Your task to perform on an android device: Open Google Chrome and click the shortcut for Amazon.com Image 0: 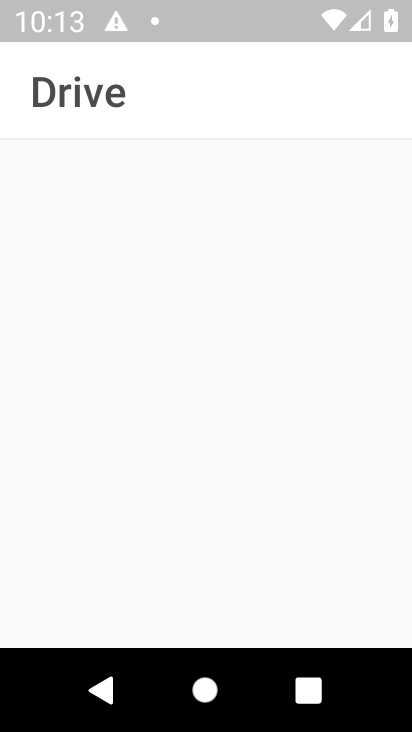
Step 0: press back button
Your task to perform on an android device: Open Google Chrome and click the shortcut for Amazon.com Image 1: 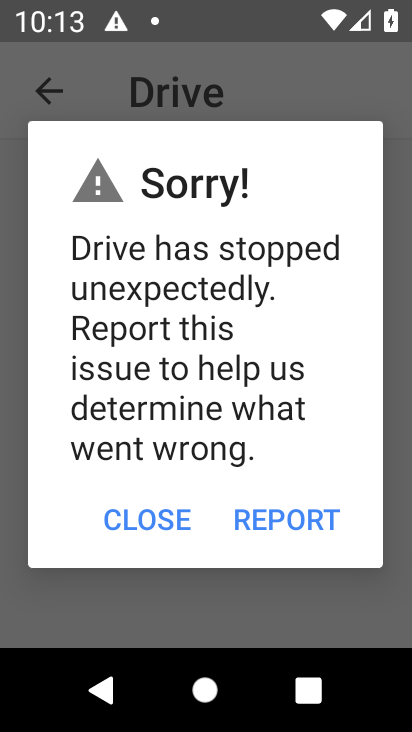
Step 1: press home button
Your task to perform on an android device: Open Google Chrome and click the shortcut for Amazon.com Image 2: 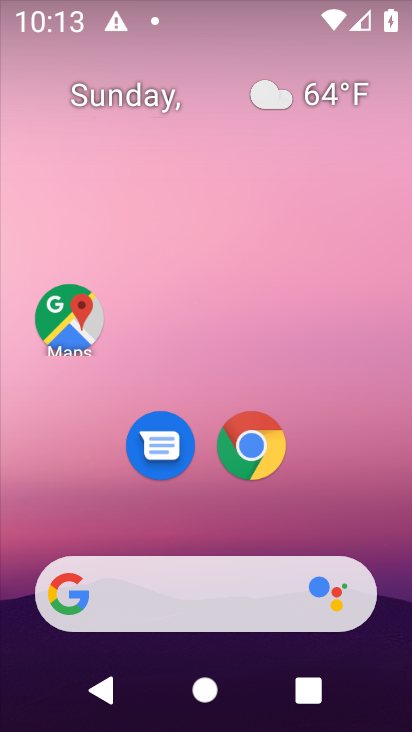
Step 2: click (262, 443)
Your task to perform on an android device: Open Google Chrome and click the shortcut for Amazon.com Image 3: 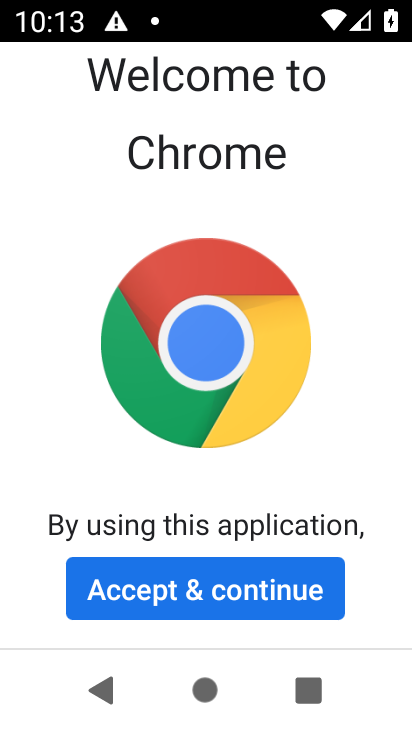
Step 3: click (265, 575)
Your task to perform on an android device: Open Google Chrome and click the shortcut for Amazon.com Image 4: 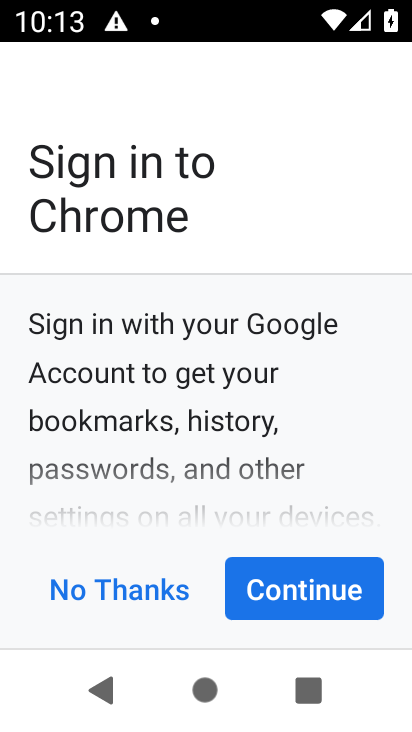
Step 4: click (323, 601)
Your task to perform on an android device: Open Google Chrome and click the shortcut for Amazon.com Image 5: 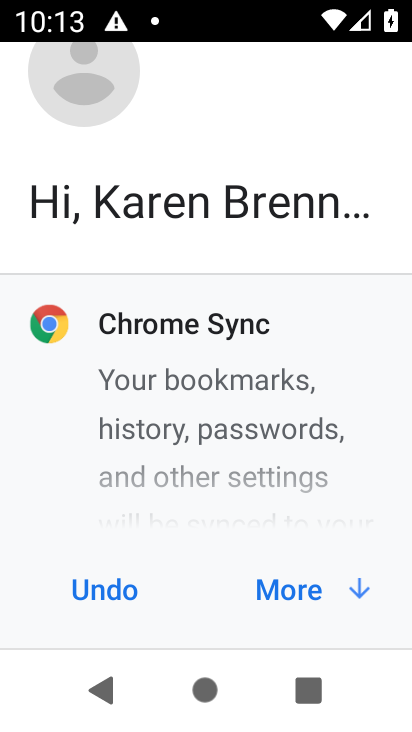
Step 5: click (323, 601)
Your task to perform on an android device: Open Google Chrome and click the shortcut for Amazon.com Image 6: 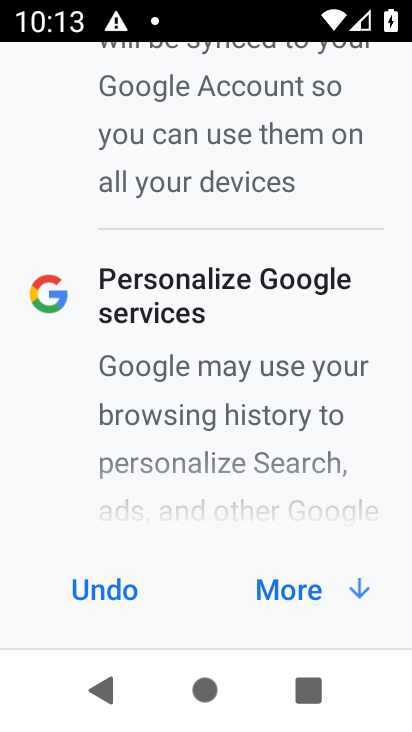
Step 6: click (304, 595)
Your task to perform on an android device: Open Google Chrome and click the shortcut for Amazon.com Image 7: 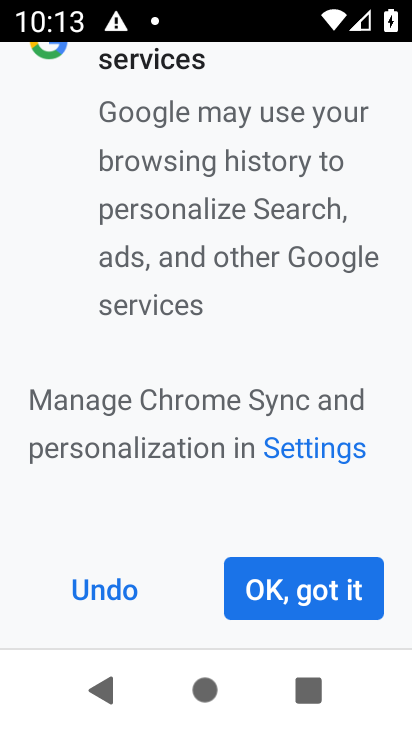
Step 7: click (304, 595)
Your task to perform on an android device: Open Google Chrome and click the shortcut for Amazon.com Image 8: 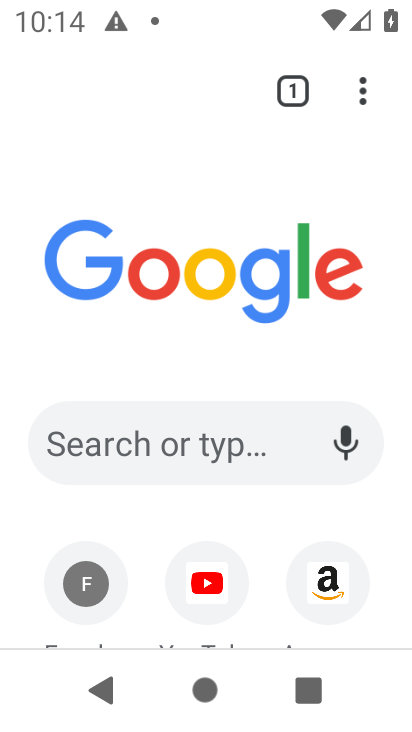
Step 8: click (310, 614)
Your task to perform on an android device: Open Google Chrome and click the shortcut for Amazon.com Image 9: 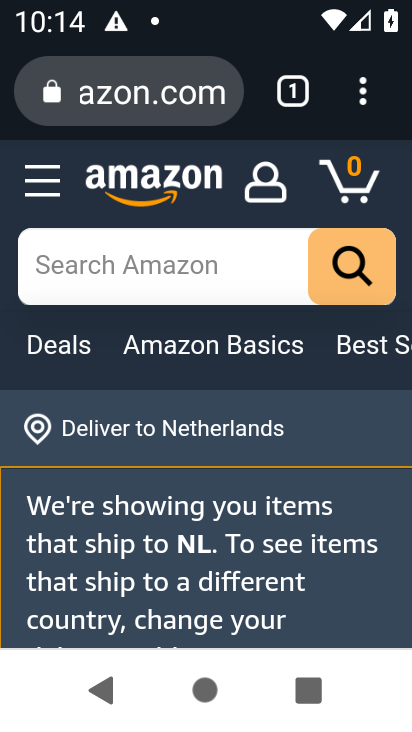
Step 9: task complete